Your task to perform on an android device: Find coffee shops on Maps Image 0: 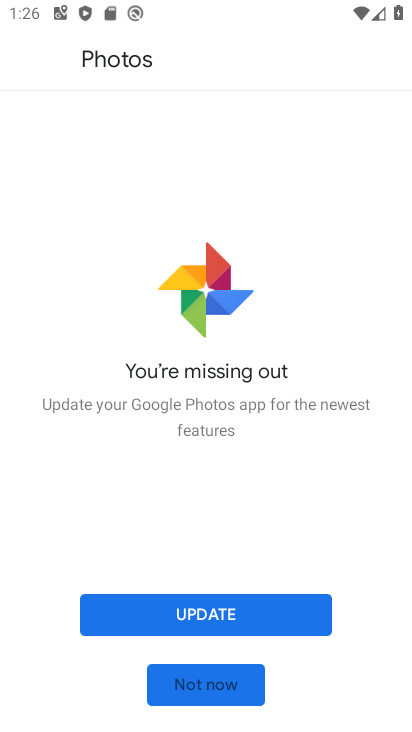
Step 0: press back button
Your task to perform on an android device: Find coffee shops on Maps Image 1: 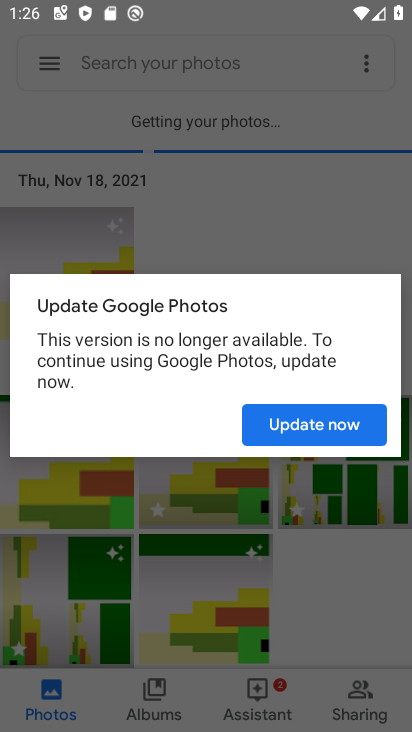
Step 1: press back button
Your task to perform on an android device: Find coffee shops on Maps Image 2: 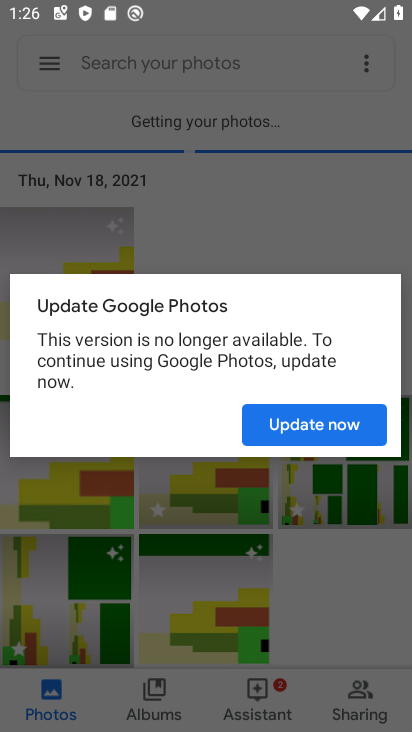
Step 2: press home button
Your task to perform on an android device: Find coffee shops on Maps Image 3: 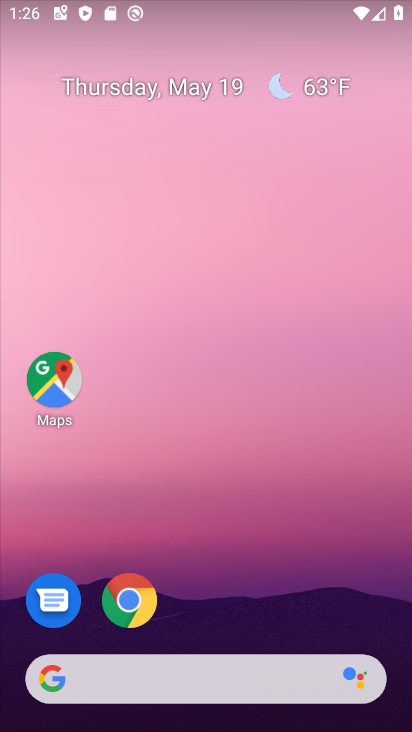
Step 3: drag from (342, 589) to (256, 111)
Your task to perform on an android device: Find coffee shops on Maps Image 4: 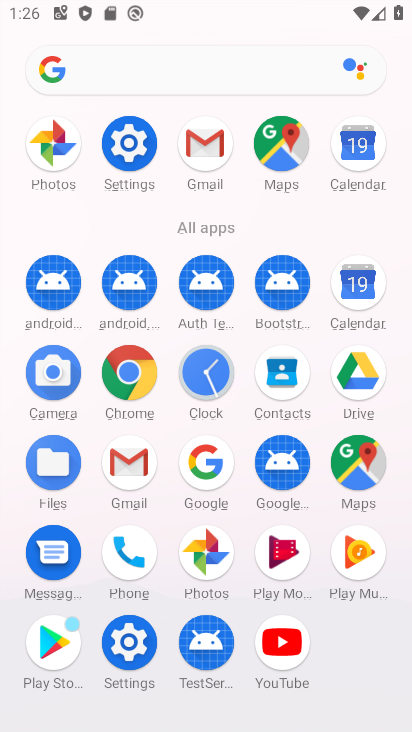
Step 4: click (275, 141)
Your task to perform on an android device: Find coffee shops on Maps Image 5: 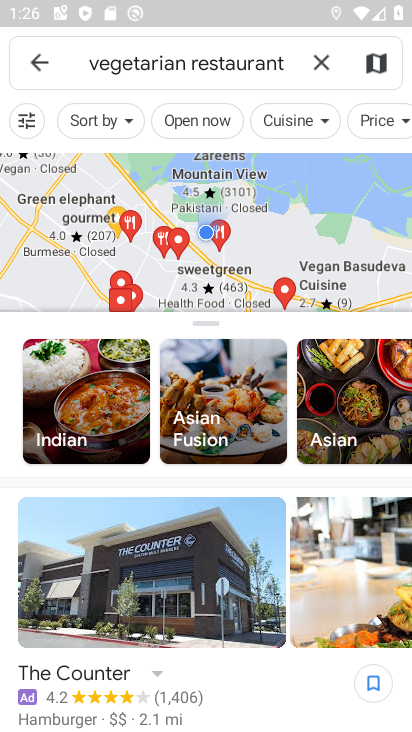
Step 5: click (45, 72)
Your task to perform on an android device: Find coffee shops on Maps Image 6: 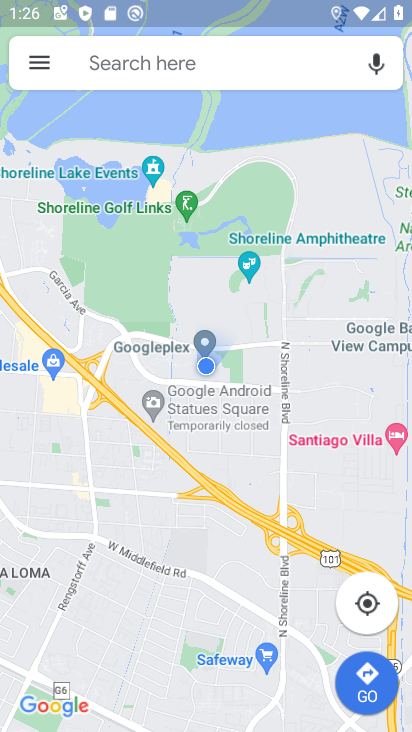
Step 6: click (210, 73)
Your task to perform on an android device: Find coffee shops on Maps Image 7: 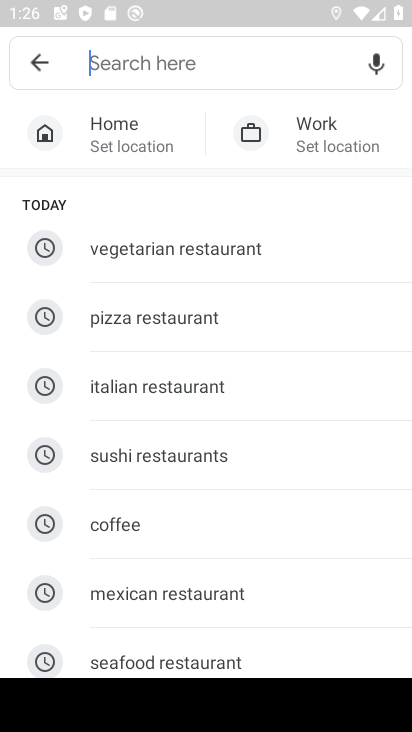
Step 7: click (159, 526)
Your task to perform on an android device: Find coffee shops on Maps Image 8: 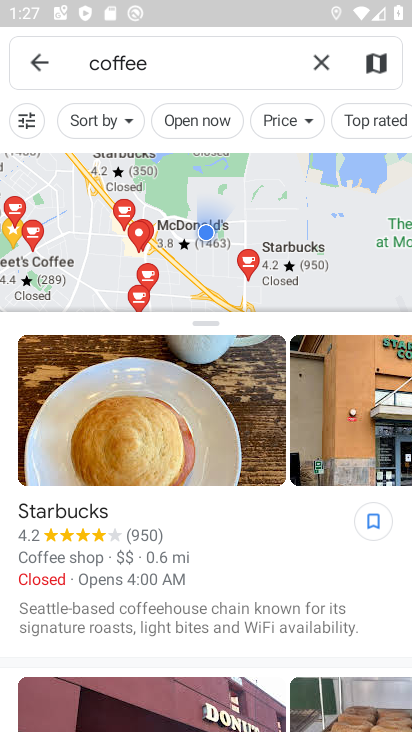
Step 8: task complete